Your task to perform on an android device: toggle data saver in the chrome app Image 0: 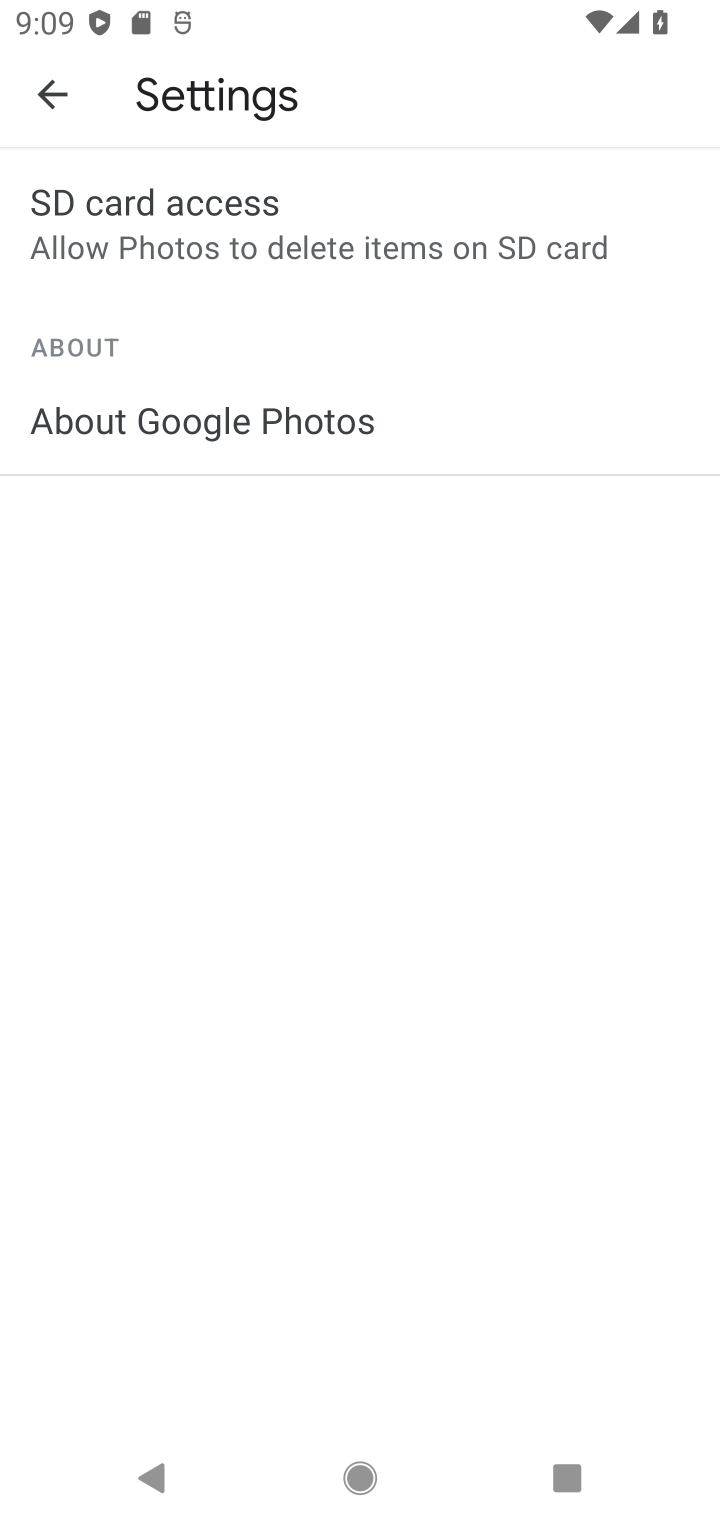
Step 0: press home button
Your task to perform on an android device: toggle data saver in the chrome app Image 1: 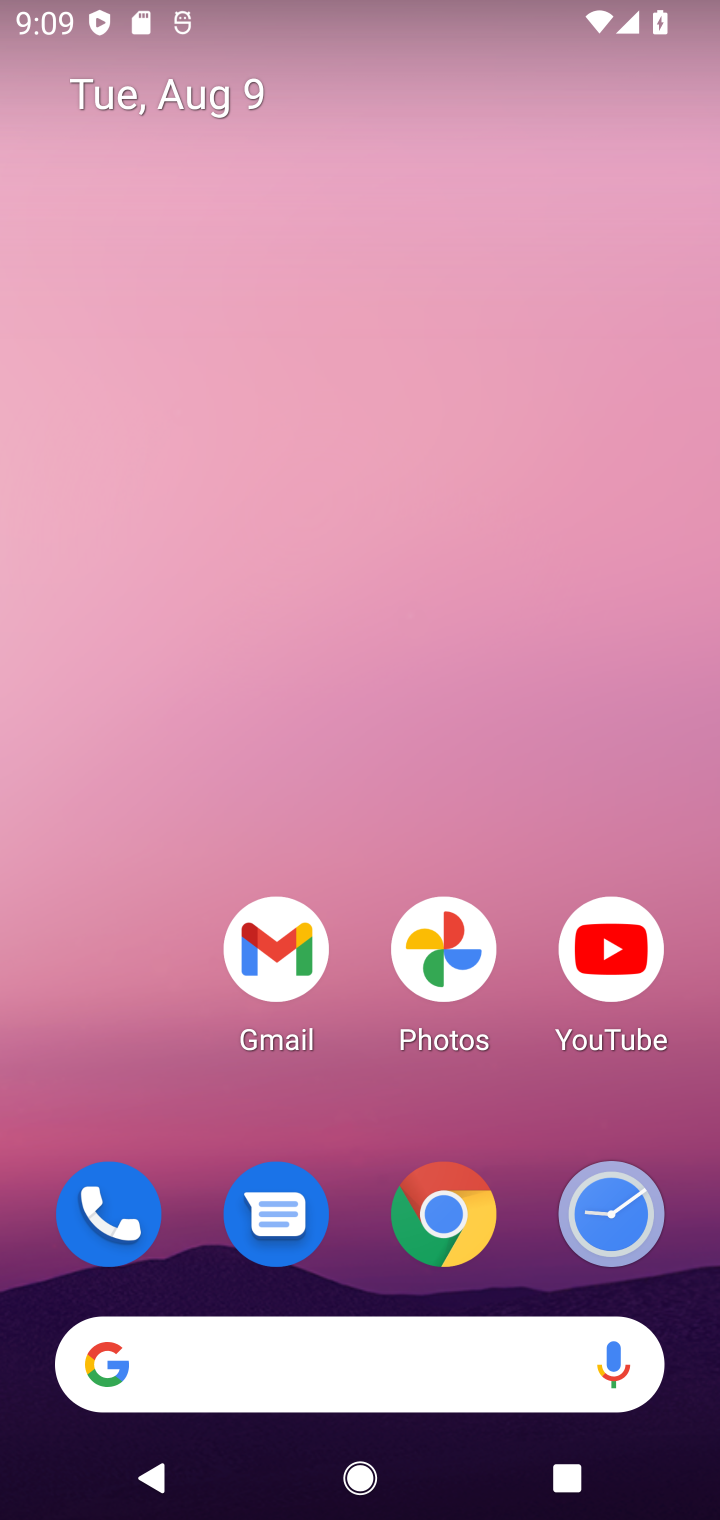
Step 1: click (424, 1227)
Your task to perform on an android device: toggle data saver in the chrome app Image 2: 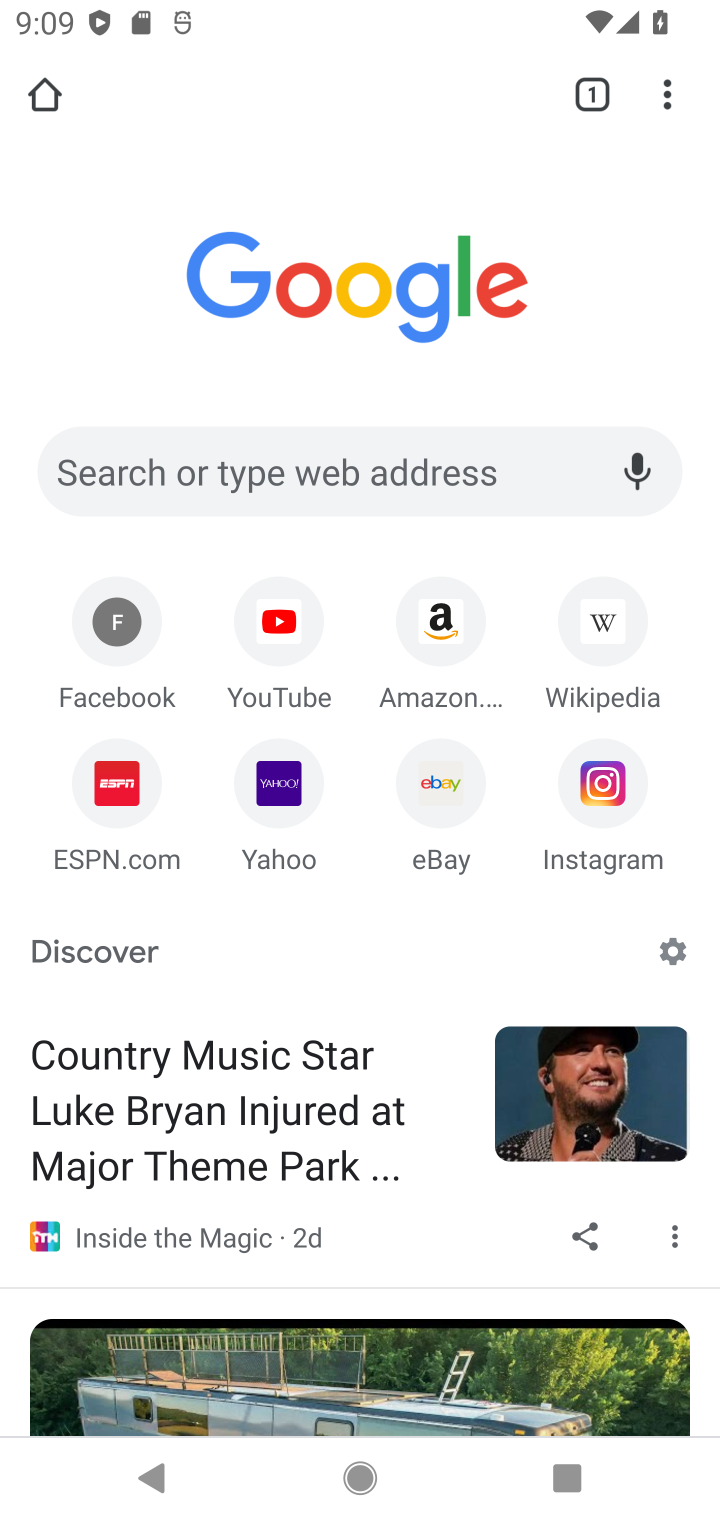
Step 2: click (671, 103)
Your task to perform on an android device: toggle data saver in the chrome app Image 3: 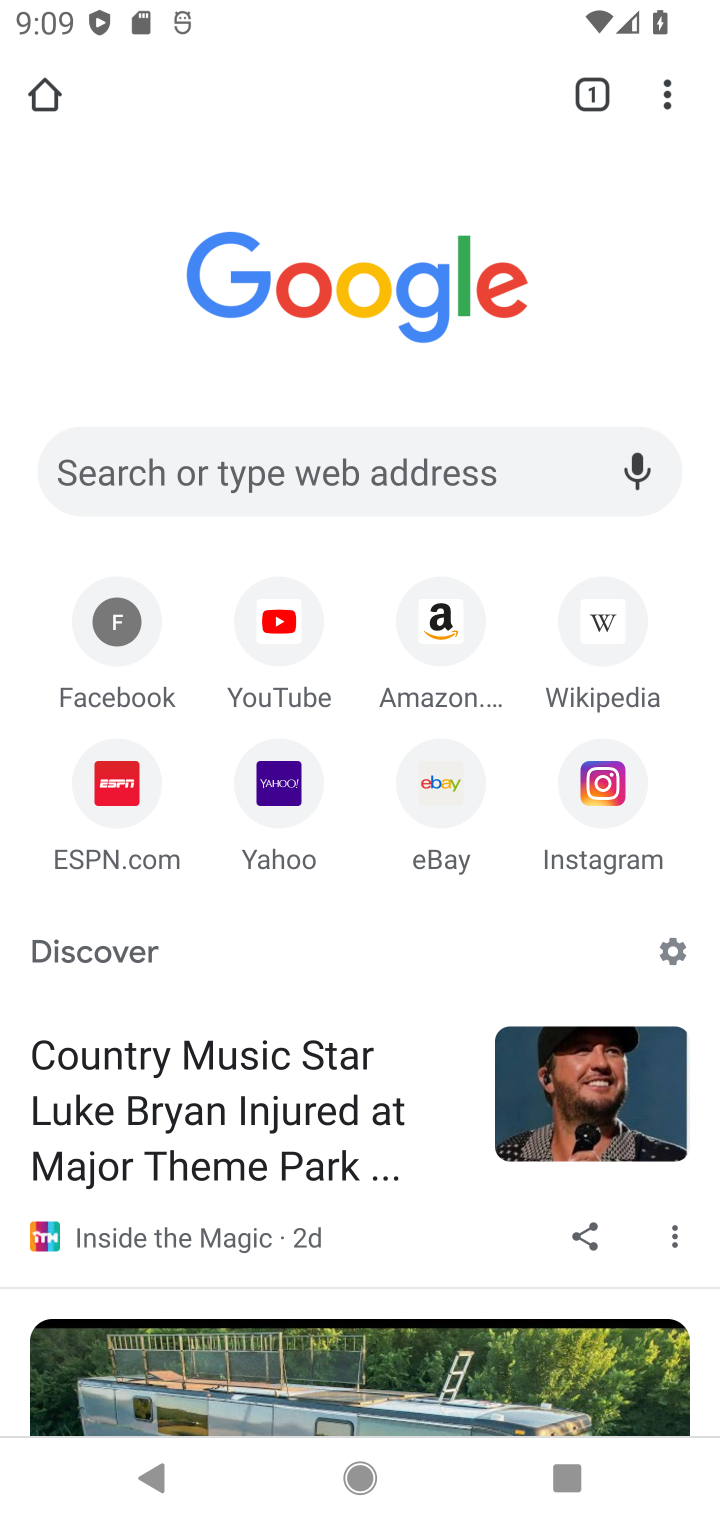
Step 3: click (672, 84)
Your task to perform on an android device: toggle data saver in the chrome app Image 4: 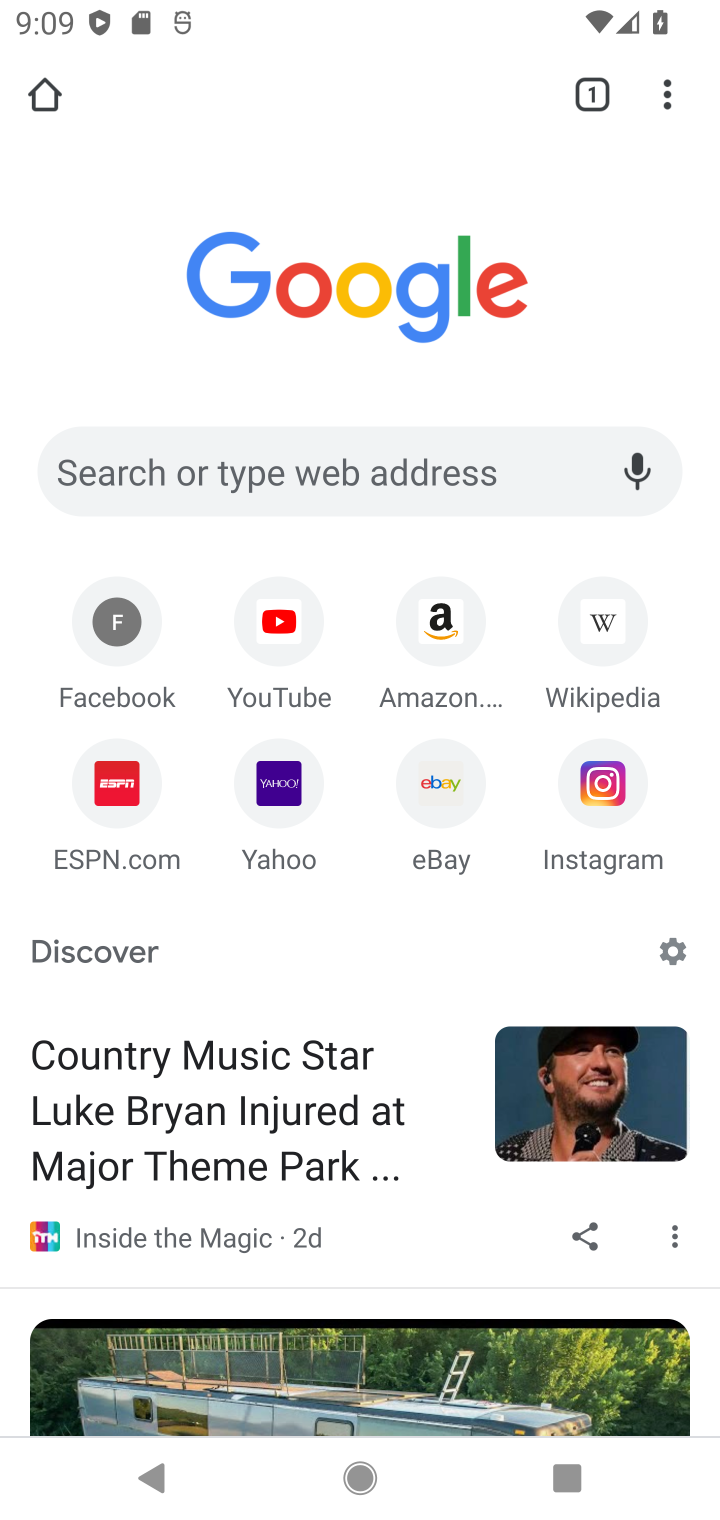
Step 4: click (666, 105)
Your task to perform on an android device: toggle data saver in the chrome app Image 5: 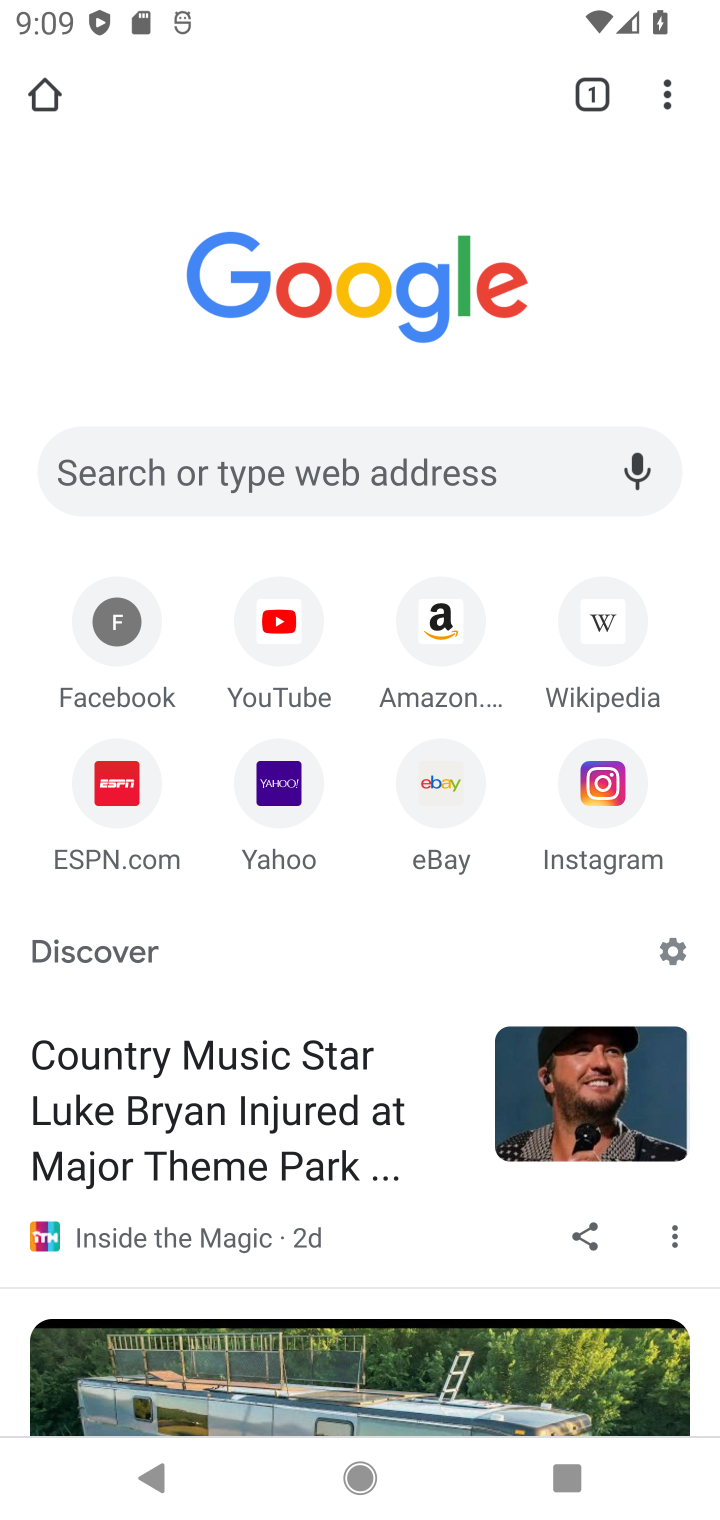
Step 5: task complete